Your task to perform on an android device: Search for the best rated soccer ball on AliExpress Image 0: 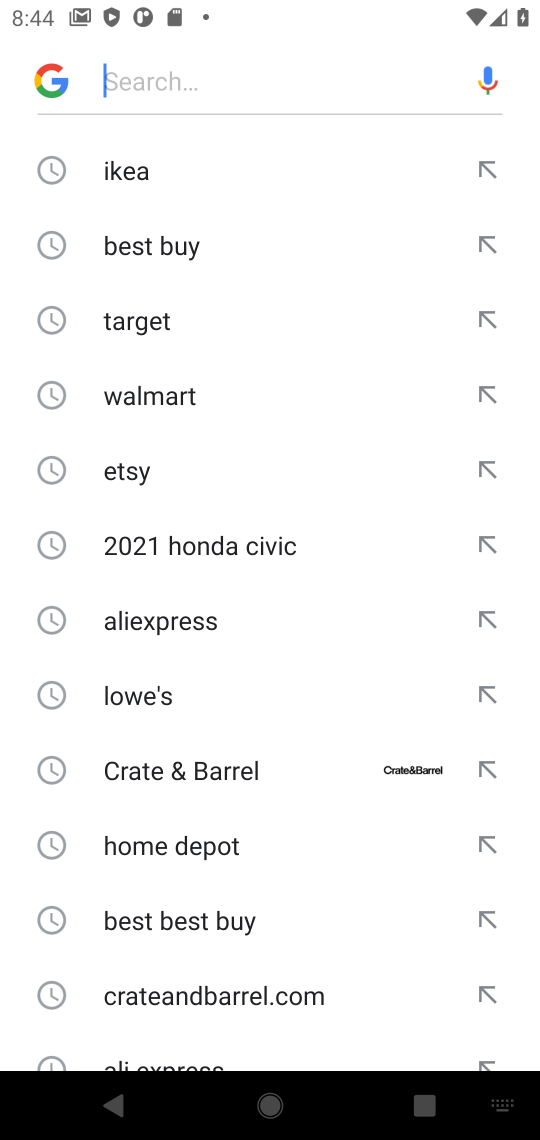
Step 0: press home button
Your task to perform on an android device: Search for the best rated soccer ball on AliExpress Image 1: 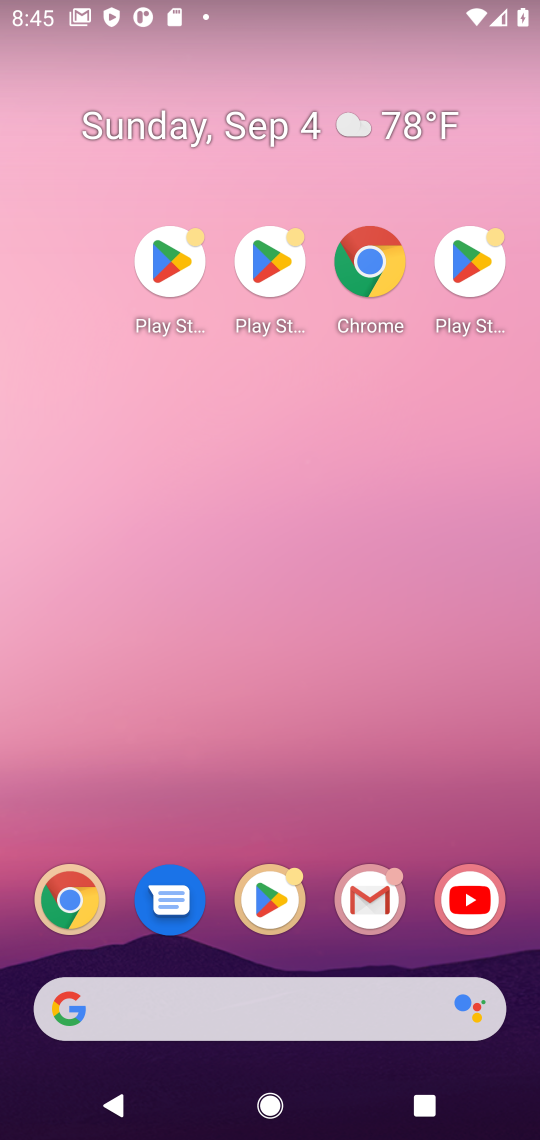
Step 1: click (289, 907)
Your task to perform on an android device: Search for the best rated soccer ball on AliExpress Image 2: 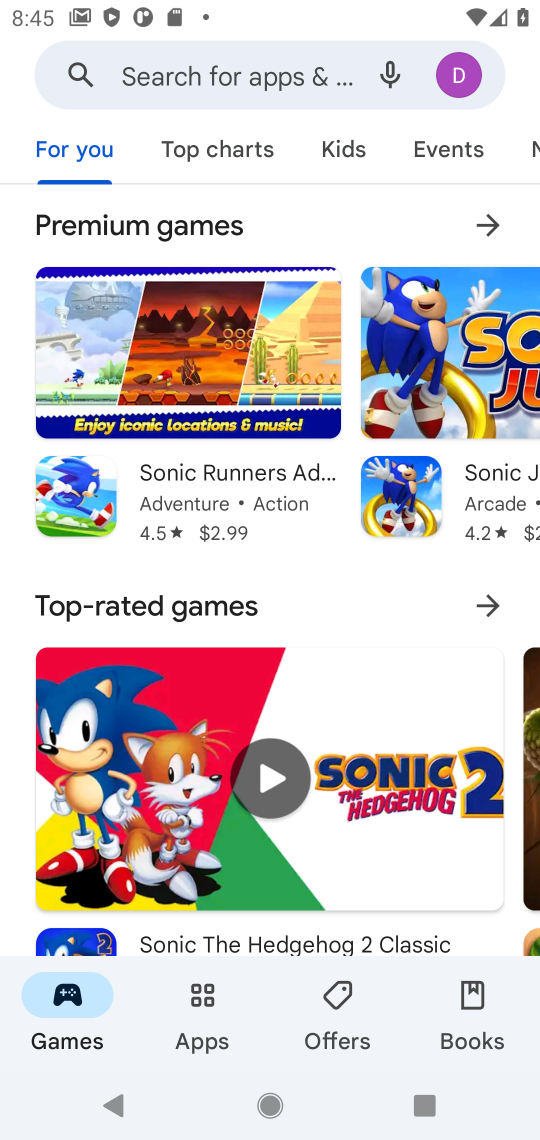
Step 2: press home button
Your task to perform on an android device: Search for the best rated soccer ball on AliExpress Image 3: 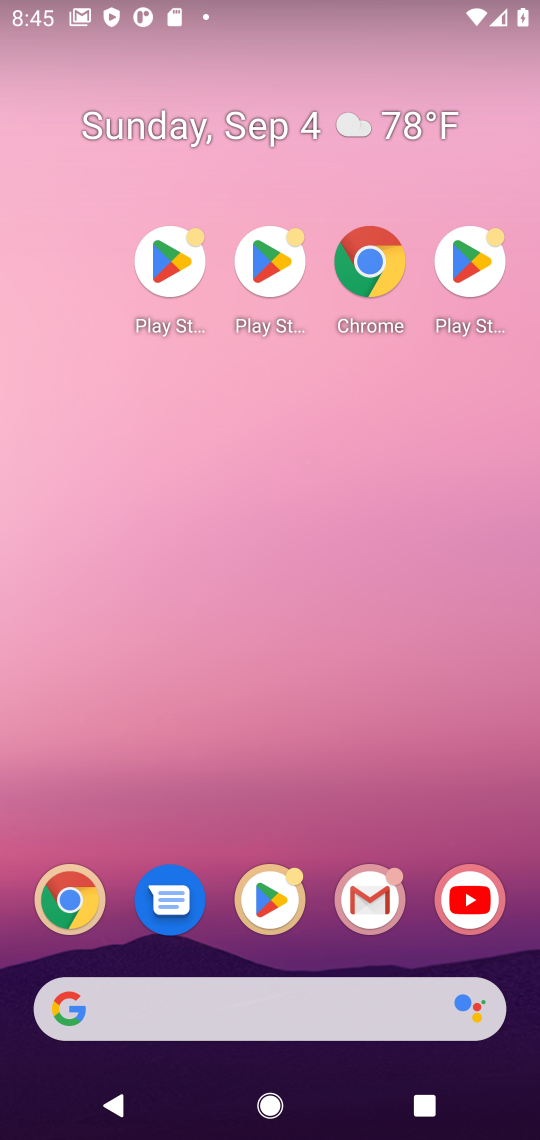
Step 3: click (373, 234)
Your task to perform on an android device: Search for the best rated soccer ball on AliExpress Image 4: 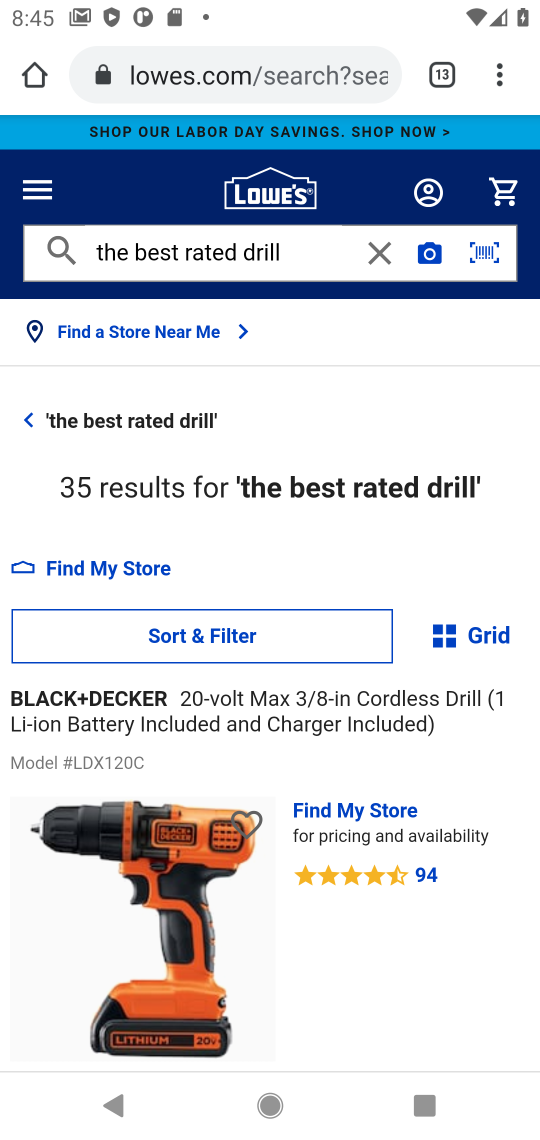
Step 4: click (373, 234)
Your task to perform on an android device: Search for the best rated soccer ball on AliExpress Image 5: 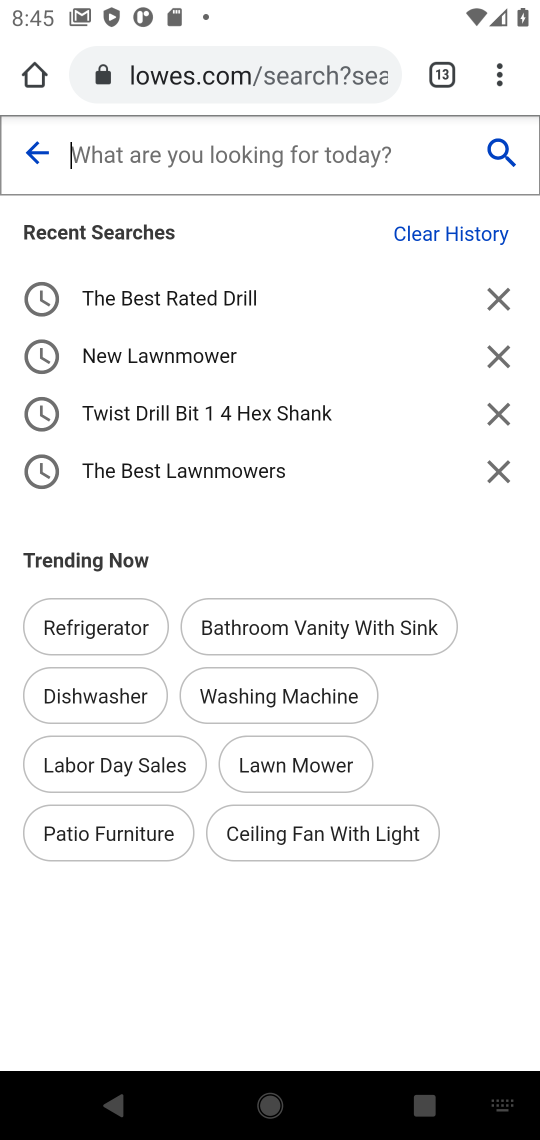
Step 5: click (434, 83)
Your task to perform on an android device: Search for the best rated soccer ball on AliExpress Image 6: 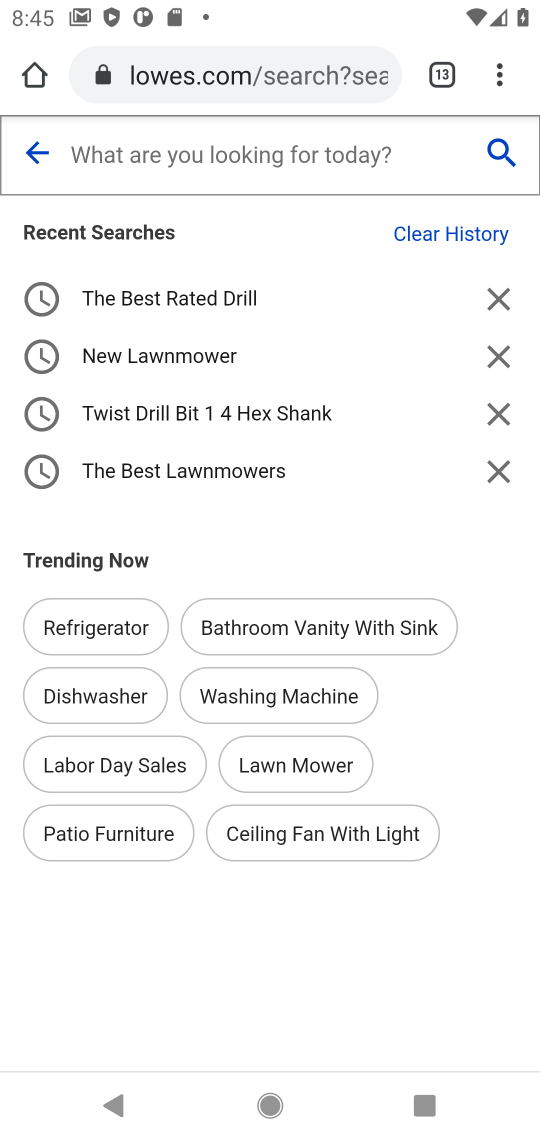
Step 6: click (432, 69)
Your task to perform on an android device: Search for the best rated soccer ball on AliExpress Image 7: 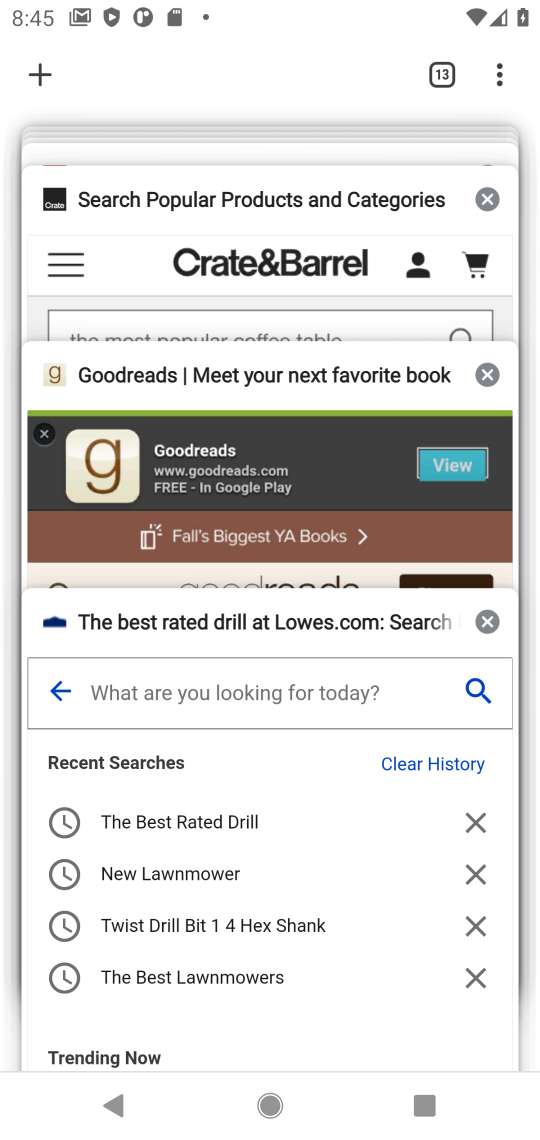
Step 7: click (29, 64)
Your task to perform on an android device: Search for the best rated soccer ball on AliExpress Image 8: 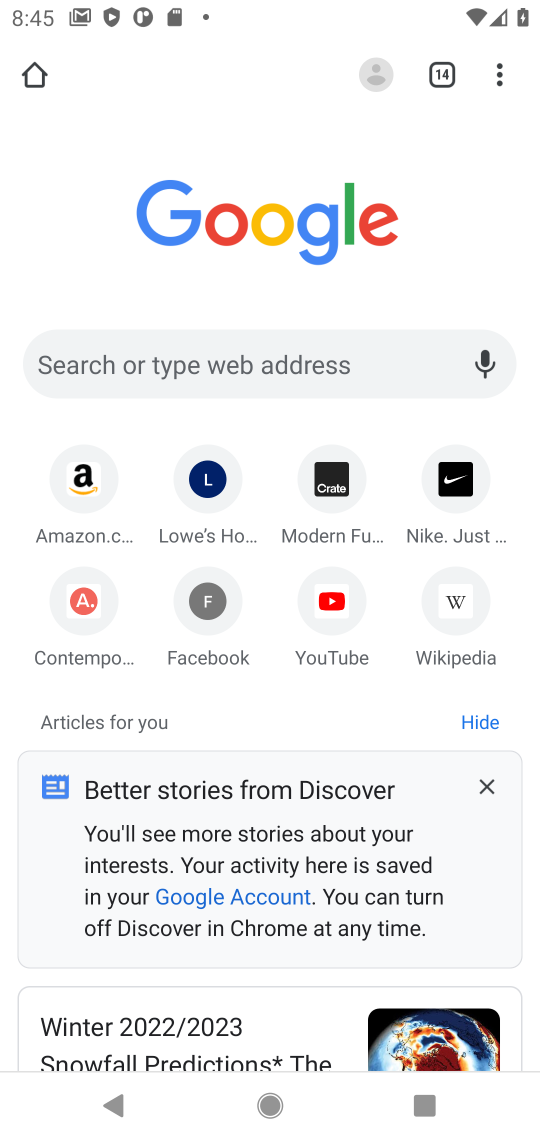
Step 8: click (212, 374)
Your task to perform on an android device: Search for the best rated soccer ball on AliExpress Image 9: 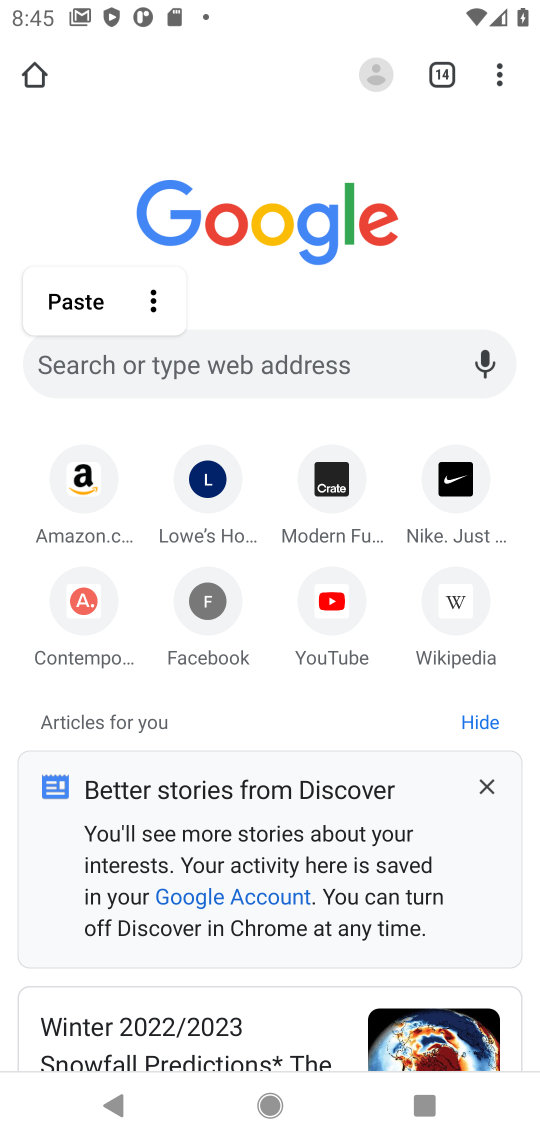
Step 9: type "AliExpress"
Your task to perform on an android device: Search for the best rated soccer ball on AliExpress Image 10: 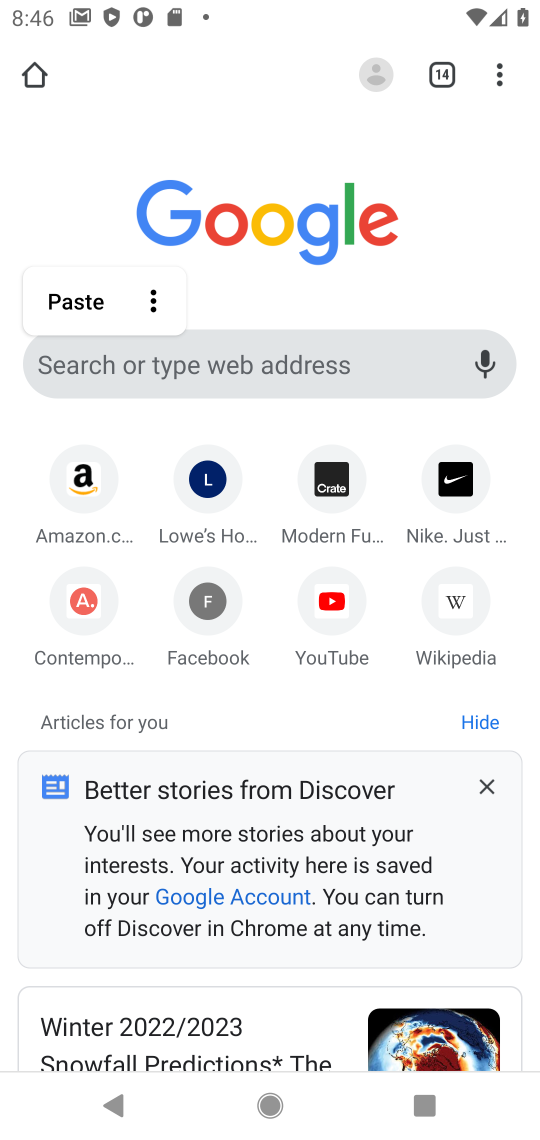
Step 10: click (319, 369)
Your task to perform on an android device: Search for the best rated soccer ball on AliExpress Image 11: 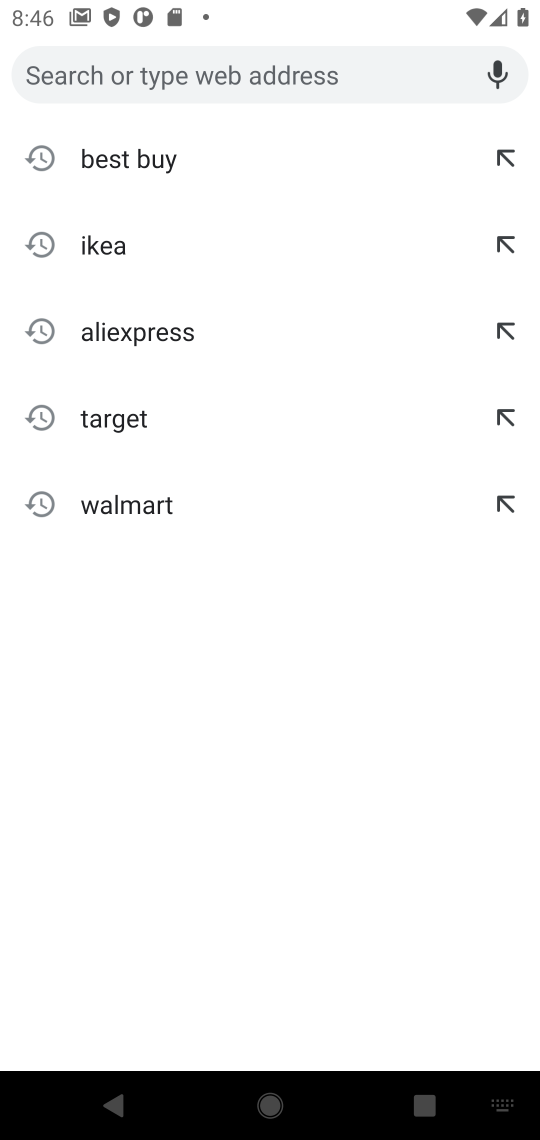
Step 11: click (538, 523)
Your task to perform on an android device: Search for the best rated soccer ball on AliExpress Image 12: 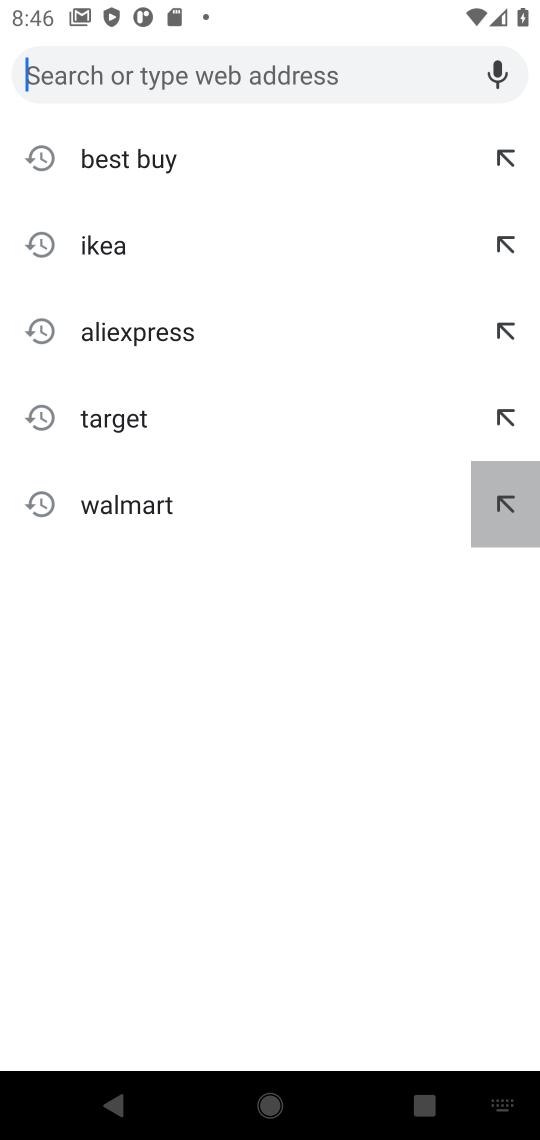
Step 12: type "AliExpress"
Your task to perform on an android device: Search for the best rated soccer ball on AliExpress Image 13: 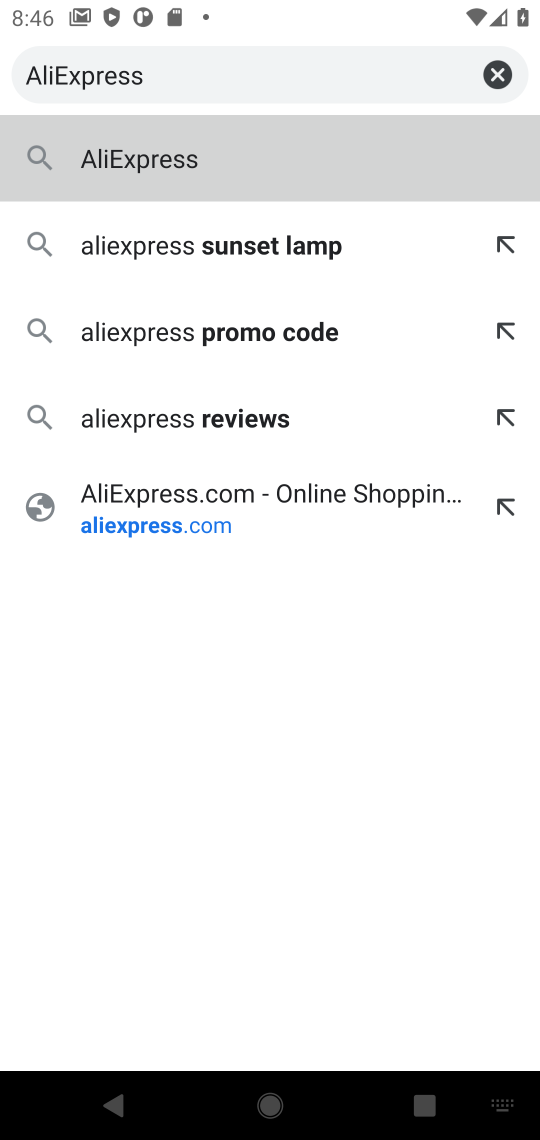
Step 13: drag from (538, 523) to (519, 297)
Your task to perform on an android device: Search for the best rated soccer ball on AliExpress Image 14: 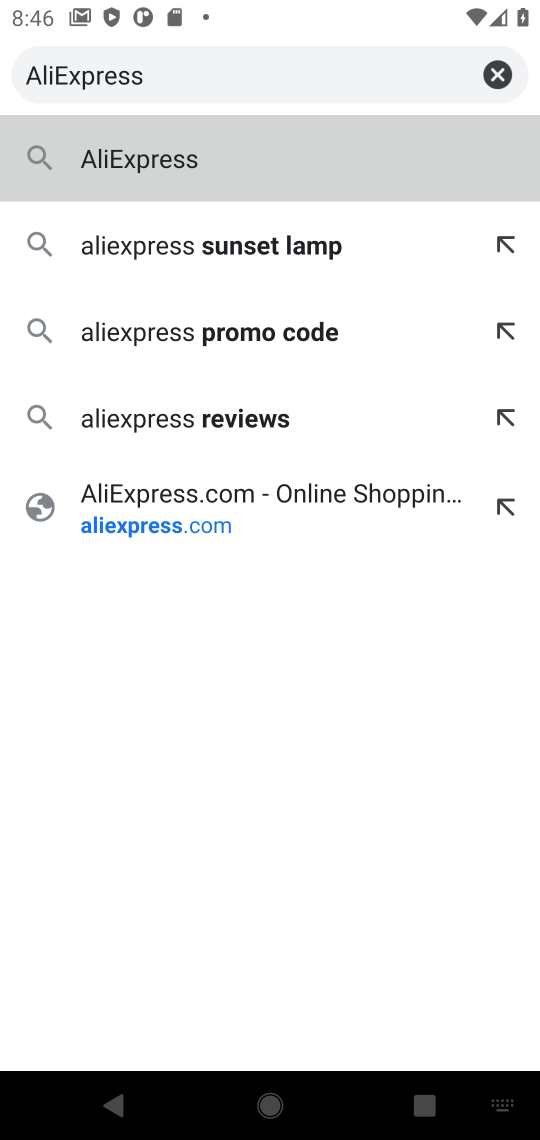
Step 14: click (230, 170)
Your task to perform on an android device: Search for the best rated soccer ball on AliExpress Image 15: 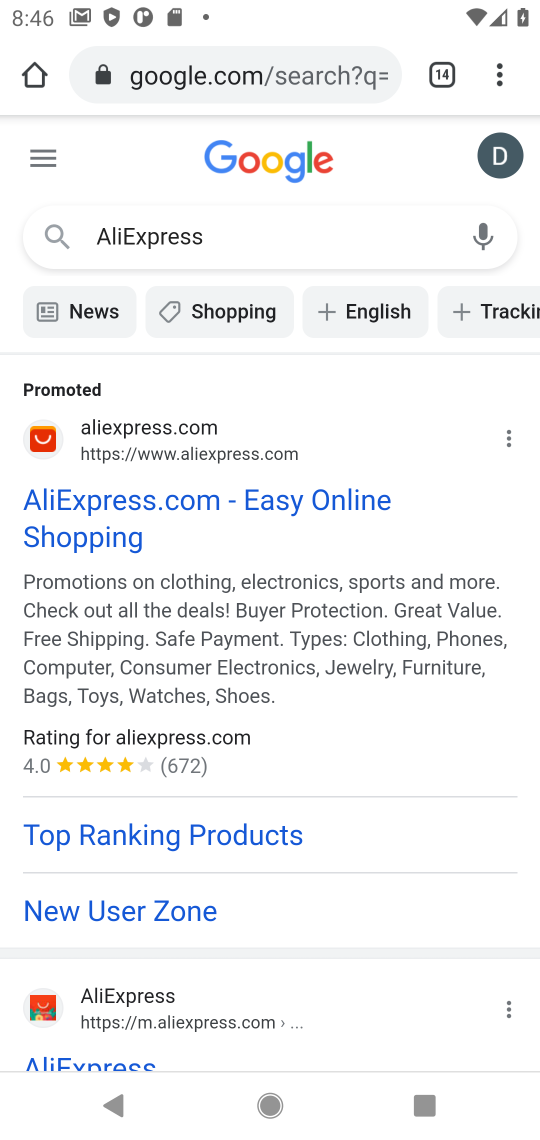
Step 15: click (124, 496)
Your task to perform on an android device: Search for the best rated soccer ball on AliExpress Image 16: 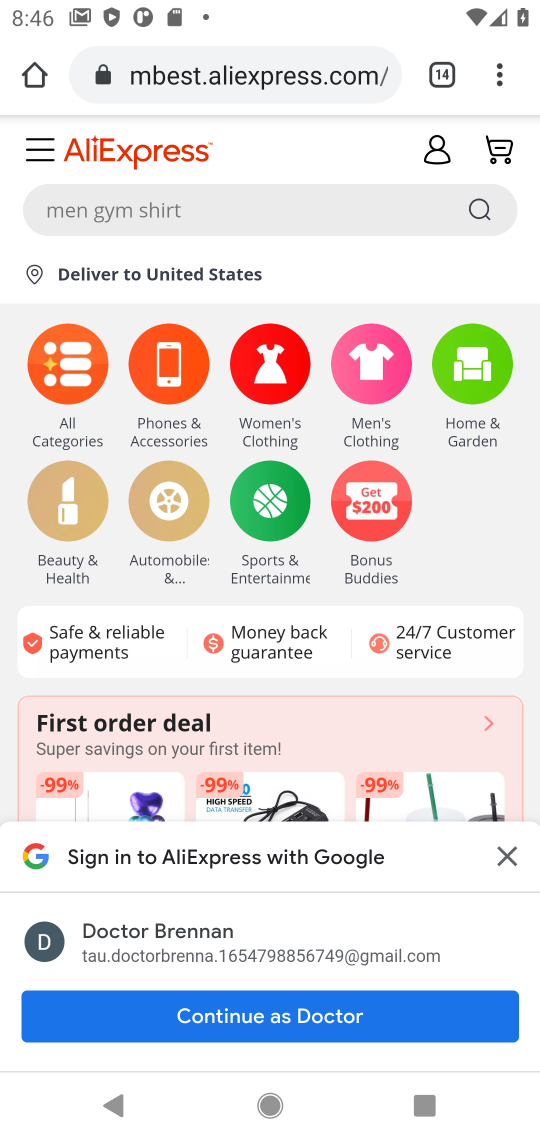
Step 16: click (87, 207)
Your task to perform on an android device: Search for the best rated soccer ball on AliExpress Image 17: 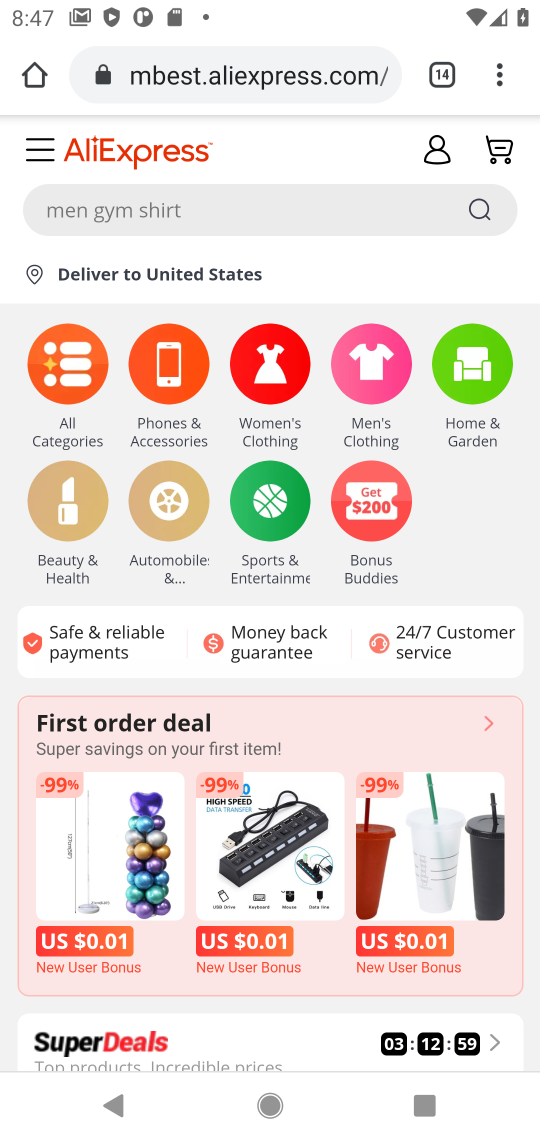
Step 17: type "the best rated soccer ball"
Your task to perform on an android device: Search for the best rated soccer ball on AliExpress Image 18: 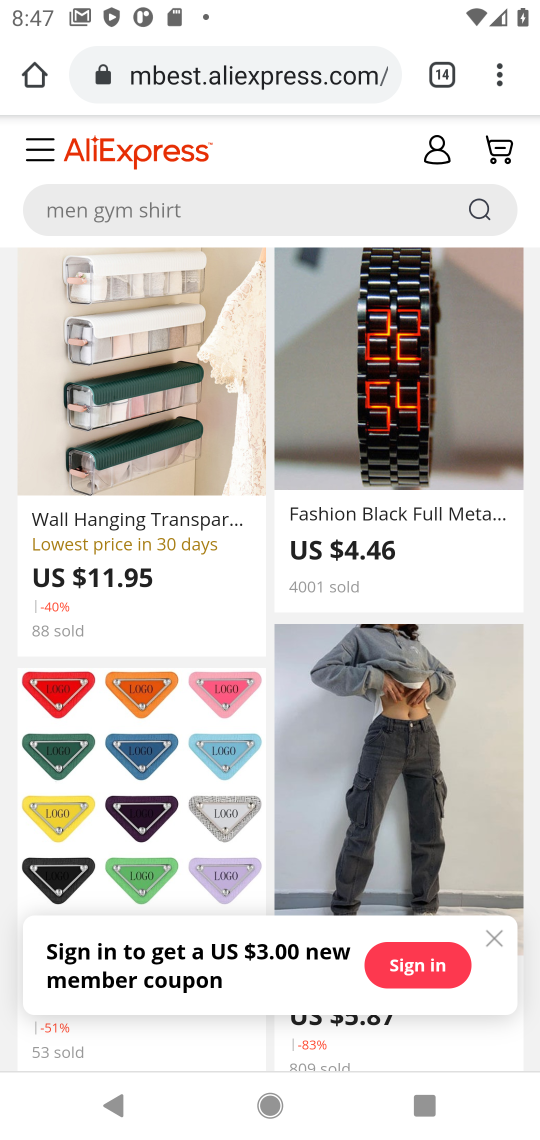
Step 18: click (262, 221)
Your task to perform on an android device: Search for the best rated soccer ball on AliExpress Image 19: 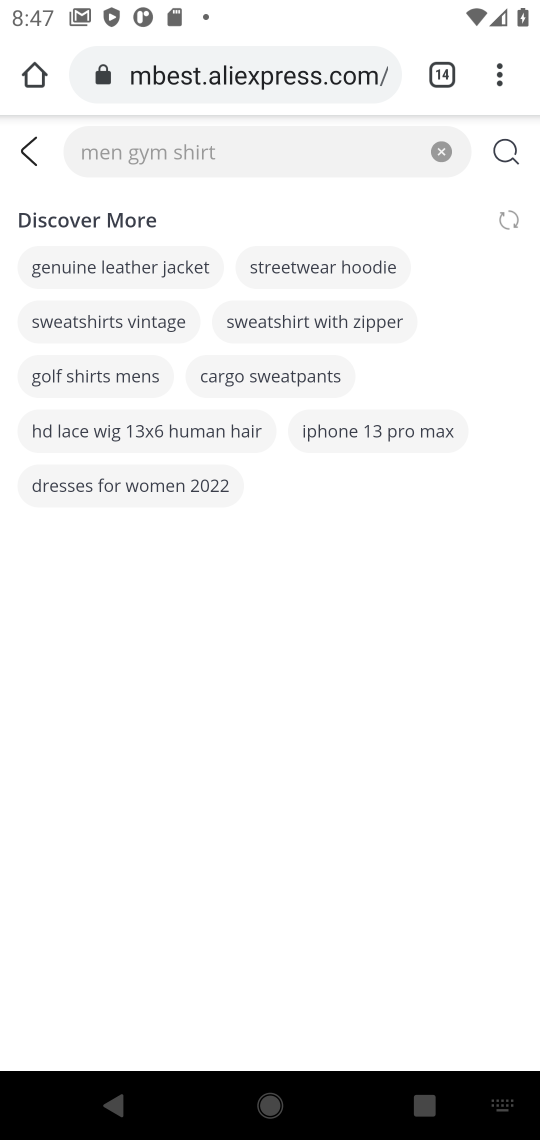
Step 19: click (327, 199)
Your task to perform on an android device: Search for the best rated soccer ball on AliExpress Image 20: 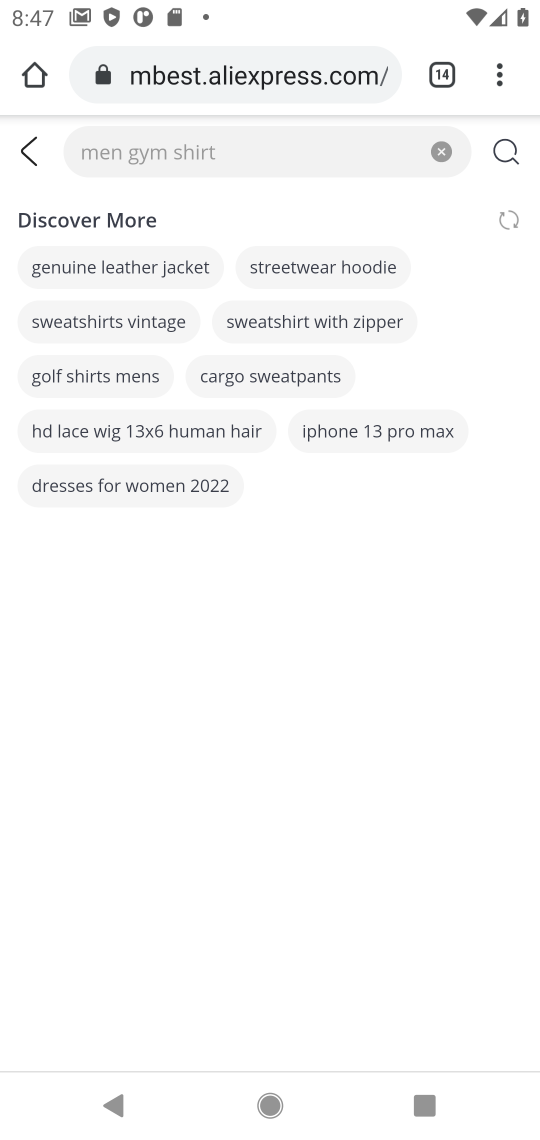
Step 20: type " the best rated soccer ball "
Your task to perform on an android device: Search for the best rated soccer ball on AliExpress Image 21: 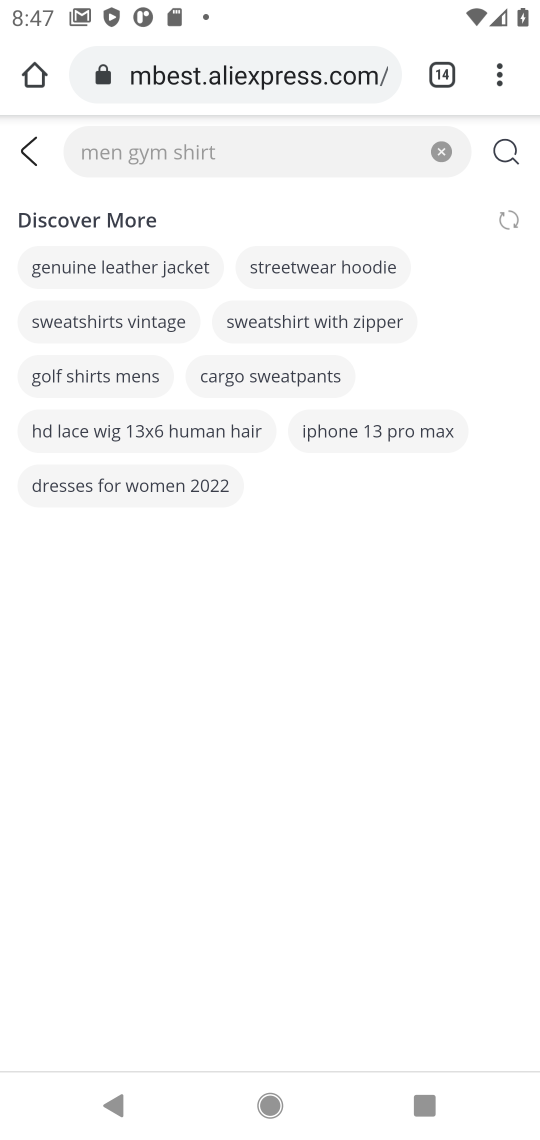
Step 21: drag from (327, 199) to (501, 504)
Your task to perform on an android device: Search for the best rated soccer ball on AliExpress Image 22: 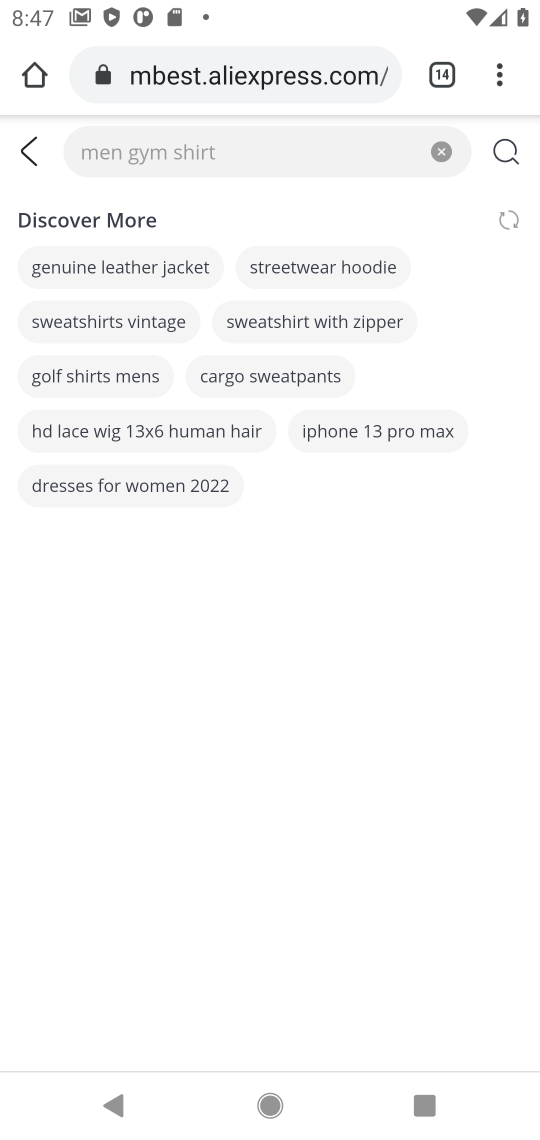
Step 22: click (334, 140)
Your task to perform on an android device: Search for the best rated soccer ball on AliExpress Image 23: 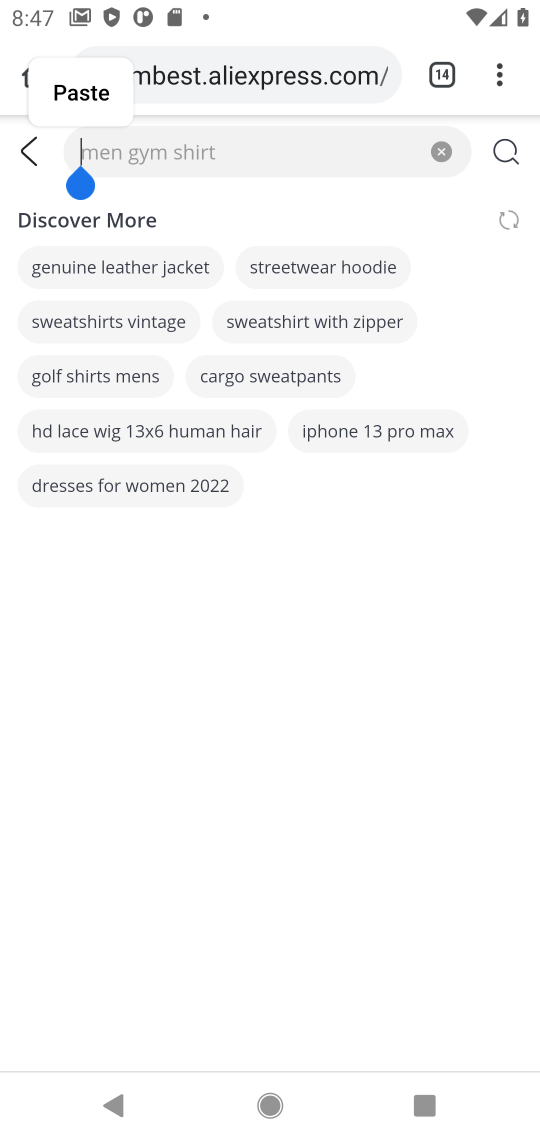
Step 23: type "the best rated soccer bal"
Your task to perform on an android device: Search for the best rated soccer ball on AliExpress Image 24: 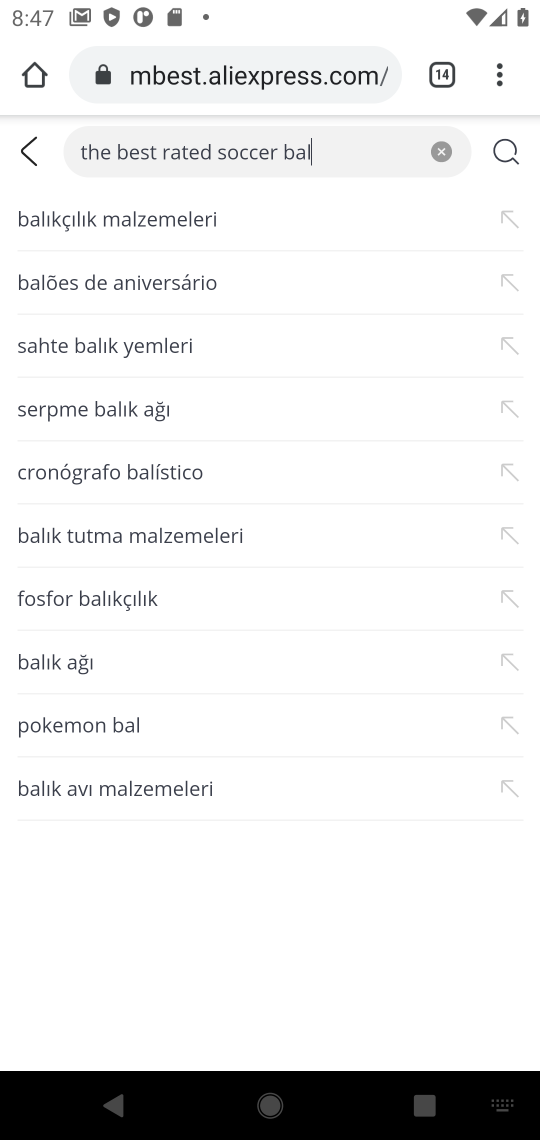
Step 24: click (508, 141)
Your task to perform on an android device: Search for the best rated soccer ball on AliExpress Image 25: 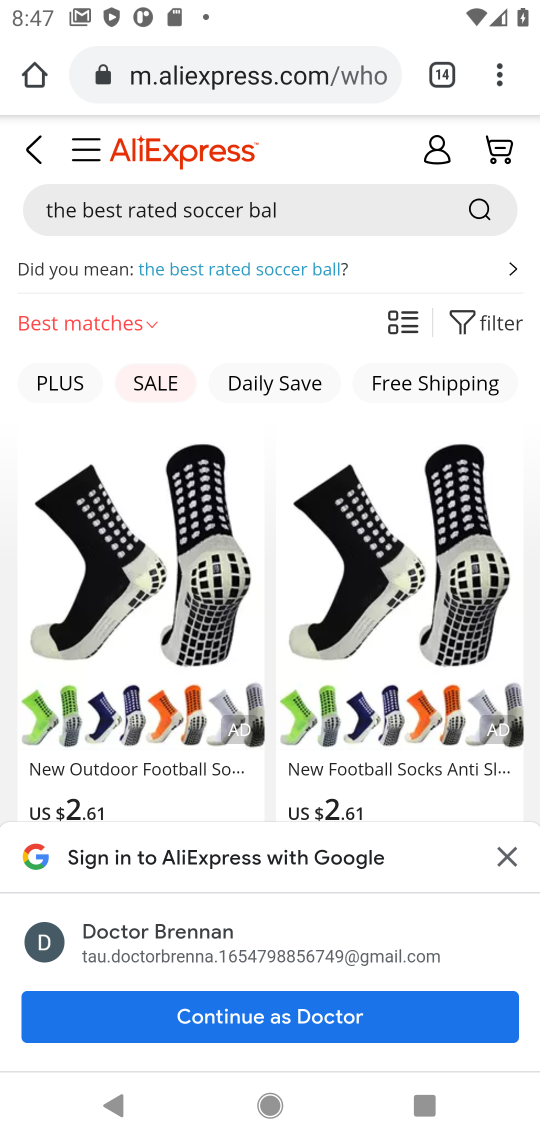
Step 25: task complete